Your task to perform on an android device: allow notifications from all sites in the chrome app Image 0: 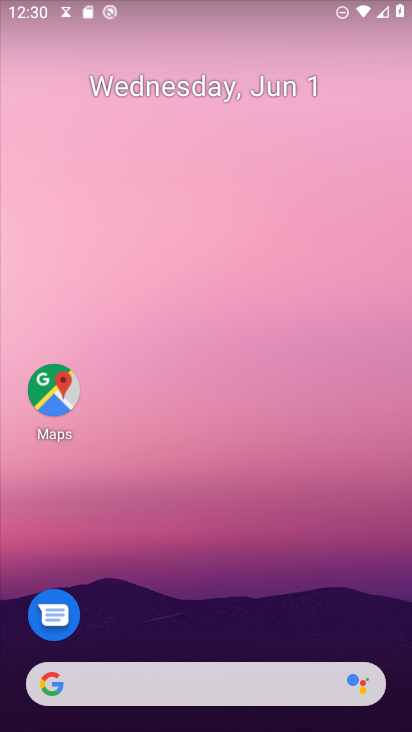
Step 0: press home button
Your task to perform on an android device: allow notifications from all sites in the chrome app Image 1: 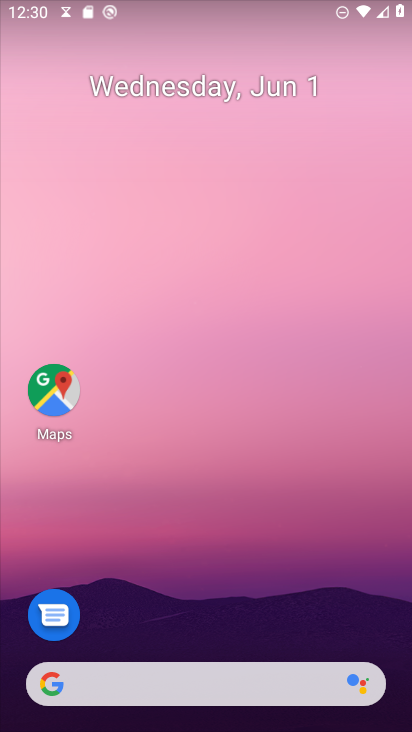
Step 1: drag from (293, 581) to (357, 86)
Your task to perform on an android device: allow notifications from all sites in the chrome app Image 2: 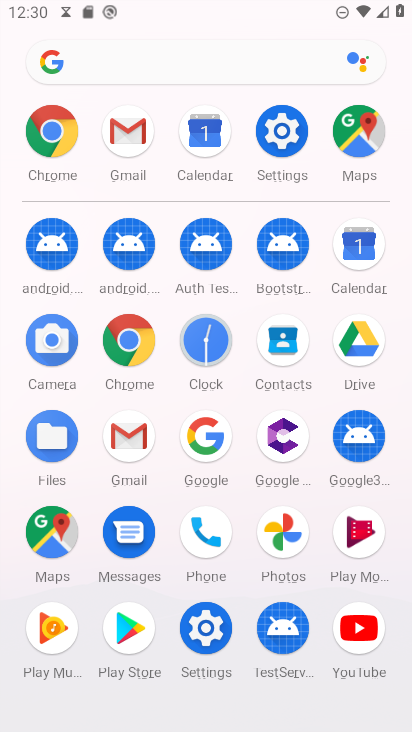
Step 2: click (123, 347)
Your task to perform on an android device: allow notifications from all sites in the chrome app Image 3: 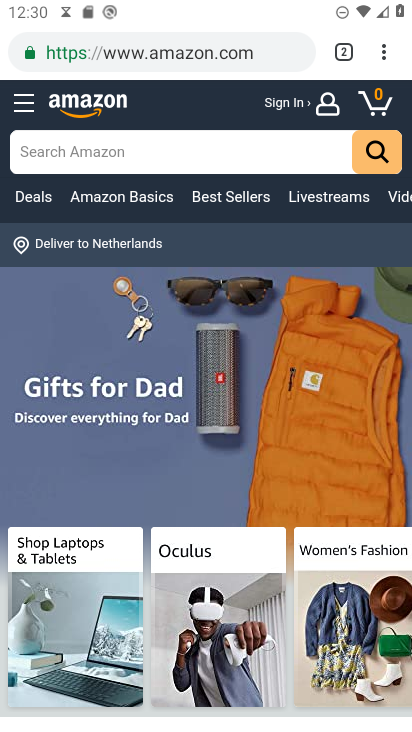
Step 3: click (383, 54)
Your task to perform on an android device: allow notifications from all sites in the chrome app Image 4: 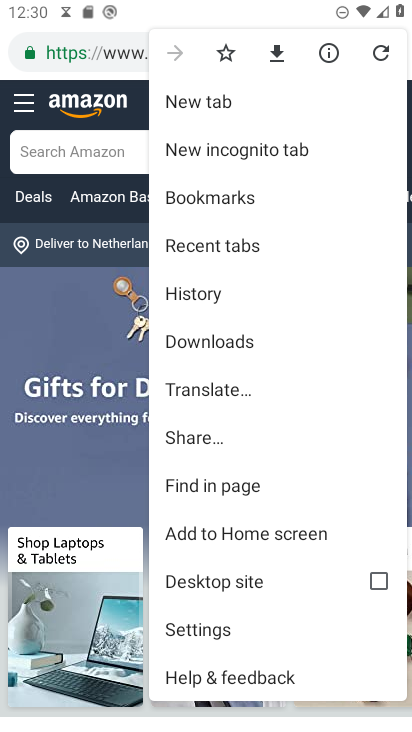
Step 4: click (204, 629)
Your task to perform on an android device: allow notifications from all sites in the chrome app Image 5: 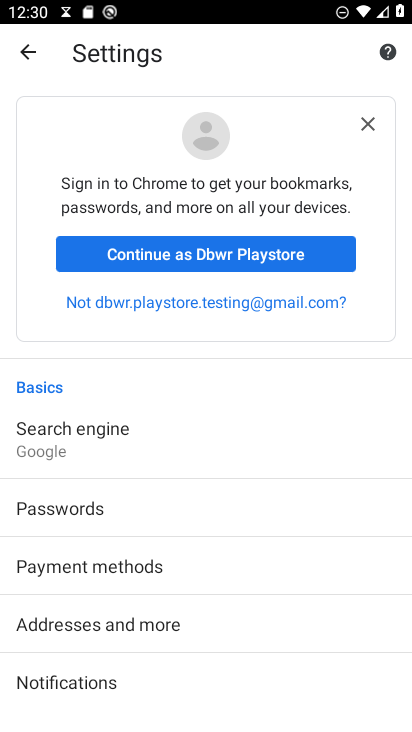
Step 5: click (116, 680)
Your task to perform on an android device: allow notifications from all sites in the chrome app Image 6: 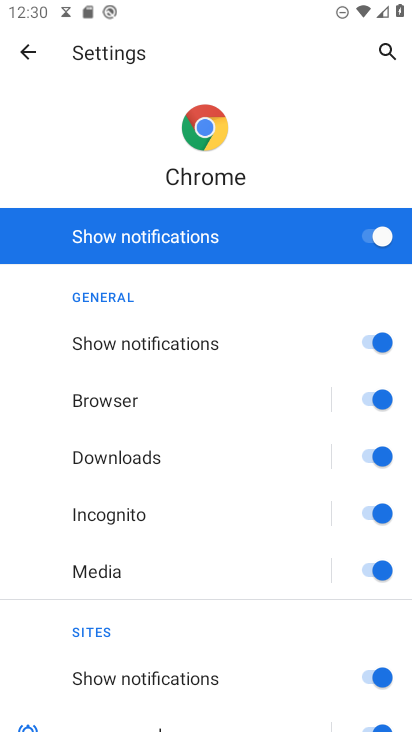
Step 6: drag from (246, 558) to (267, 325)
Your task to perform on an android device: allow notifications from all sites in the chrome app Image 7: 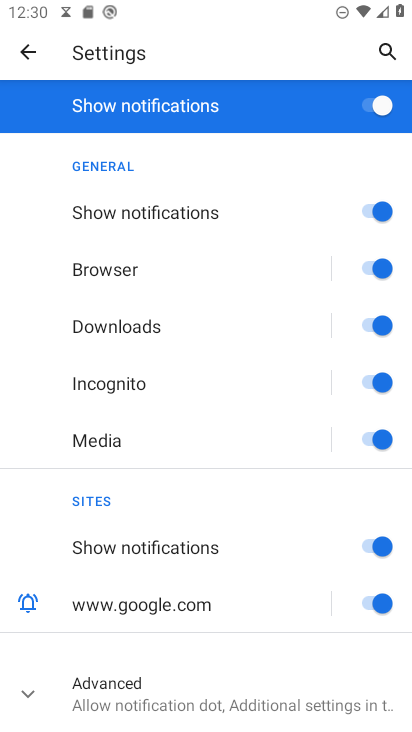
Step 7: drag from (231, 565) to (226, 315)
Your task to perform on an android device: allow notifications from all sites in the chrome app Image 8: 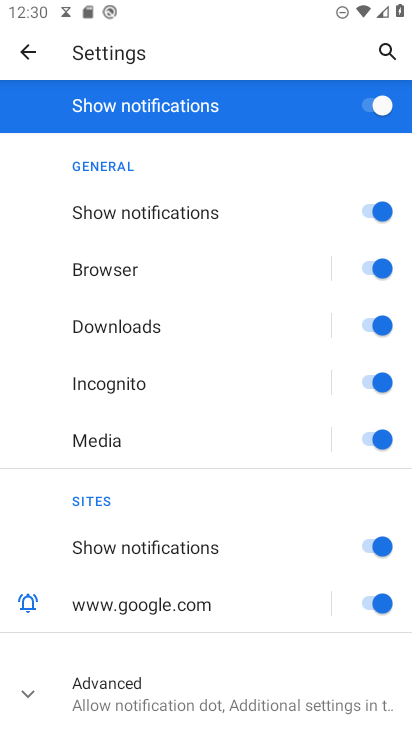
Step 8: click (168, 690)
Your task to perform on an android device: allow notifications from all sites in the chrome app Image 9: 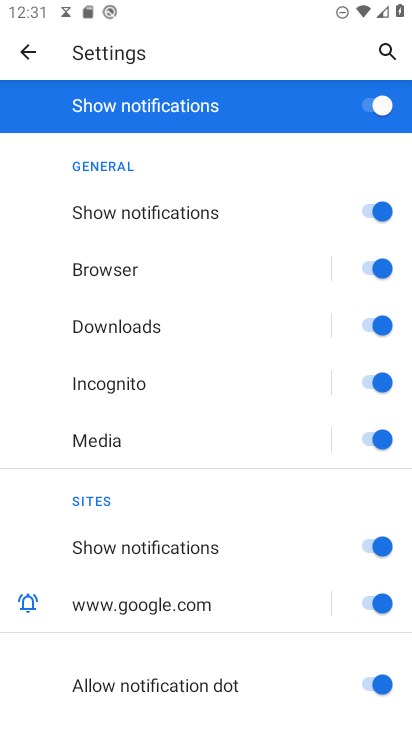
Step 9: drag from (268, 638) to (268, 326)
Your task to perform on an android device: allow notifications from all sites in the chrome app Image 10: 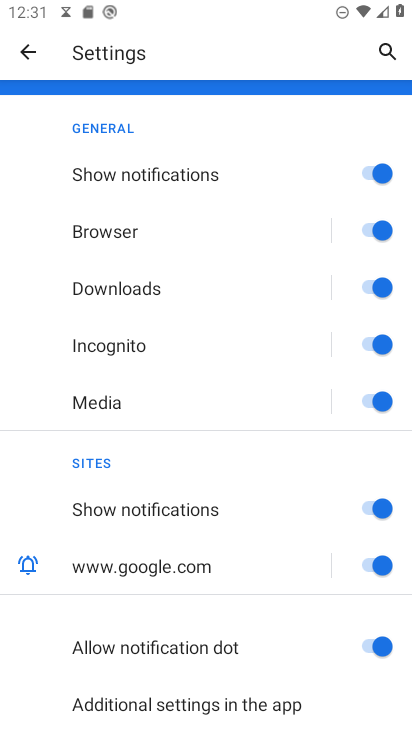
Step 10: press back button
Your task to perform on an android device: allow notifications from all sites in the chrome app Image 11: 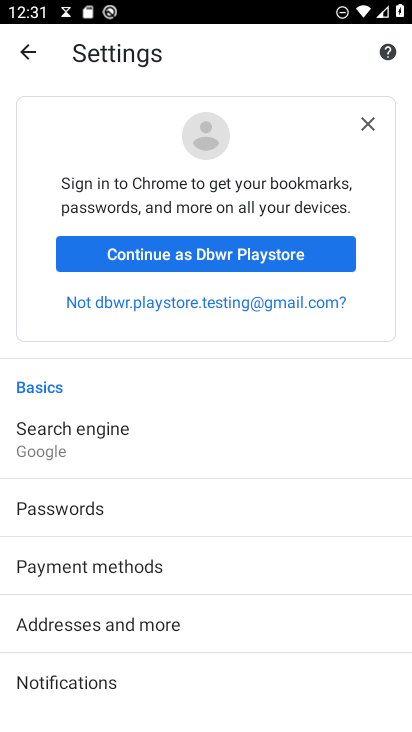
Step 11: click (124, 695)
Your task to perform on an android device: allow notifications from all sites in the chrome app Image 12: 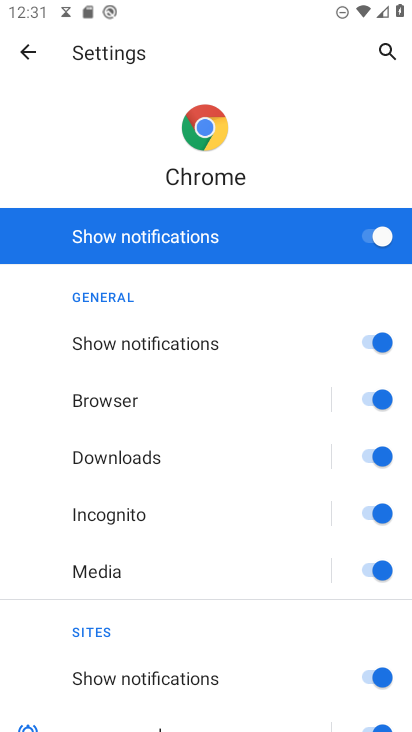
Step 12: task complete